Your task to perform on an android device: Turn on the flashlight Image 0: 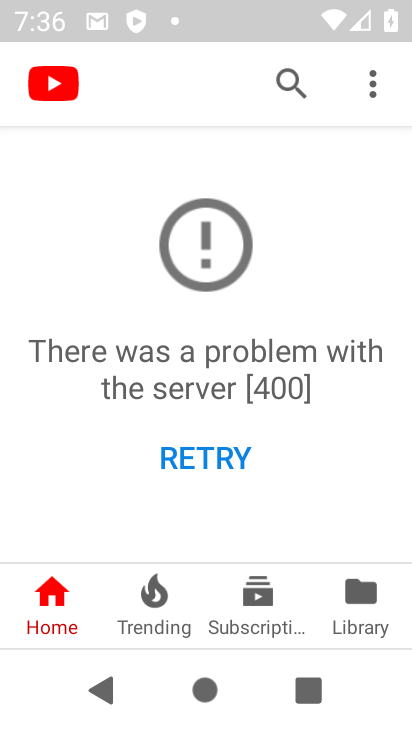
Step 0: press home button
Your task to perform on an android device: Turn on the flashlight Image 1: 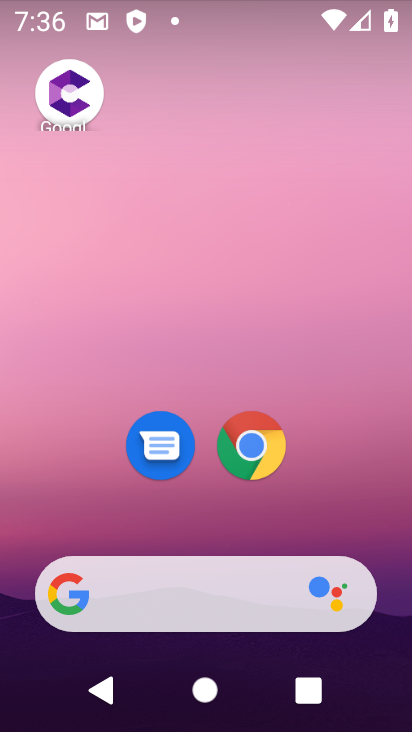
Step 1: task complete